Your task to perform on an android device: allow cookies in the chrome app Image 0: 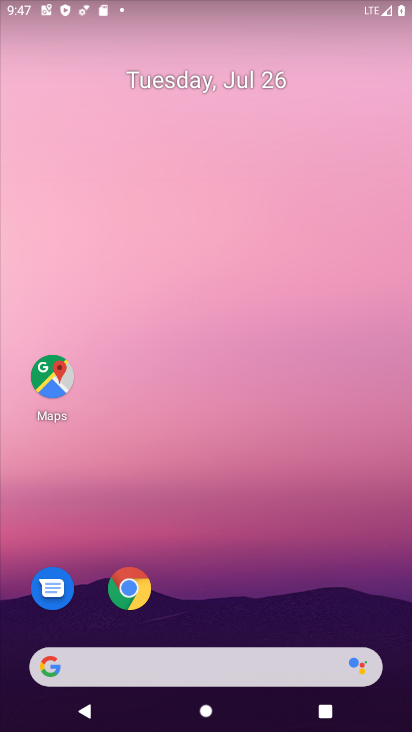
Step 0: click (130, 587)
Your task to perform on an android device: allow cookies in the chrome app Image 1: 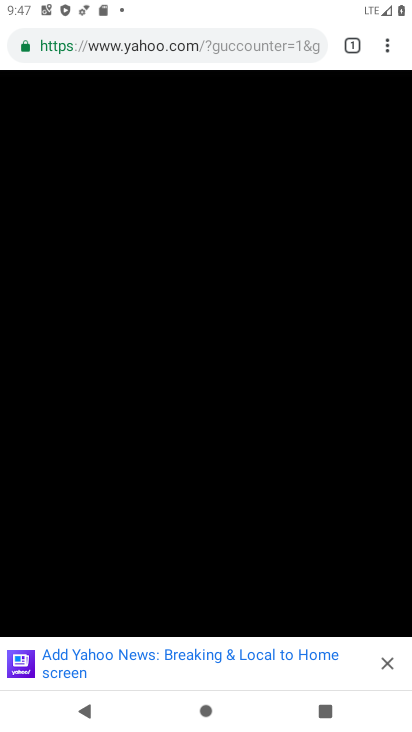
Step 1: click (388, 47)
Your task to perform on an android device: allow cookies in the chrome app Image 2: 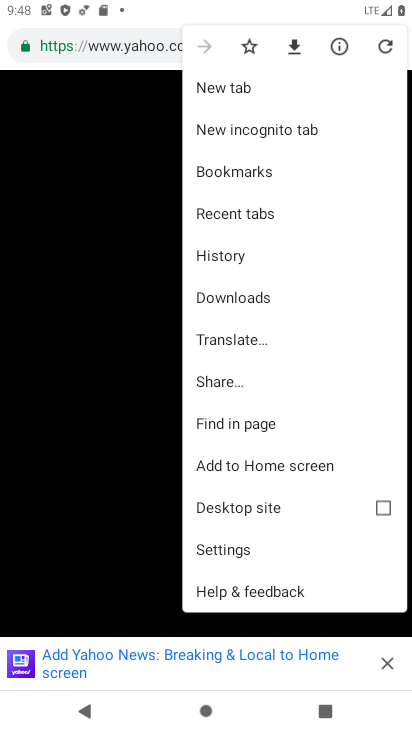
Step 2: click (227, 550)
Your task to perform on an android device: allow cookies in the chrome app Image 3: 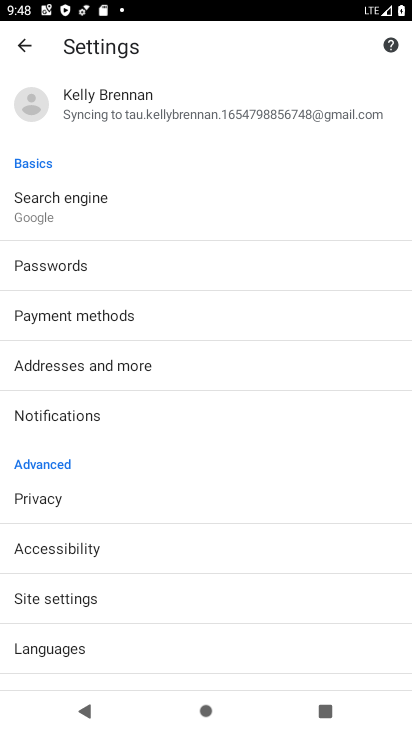
Step 3: drag from (127, 496) to (158, 385)
Your task to perform on an android device: allow cookies in the chrome app Image 4: 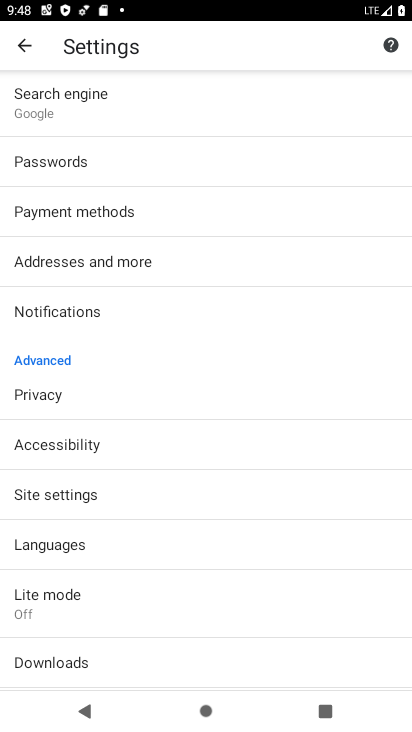
Step 4: click (83, 498)
Your task to perform on an android device: allow cookies in the chrome app Image 5: 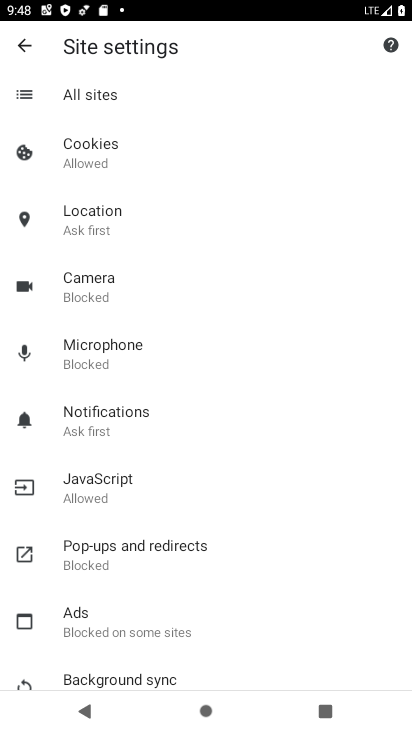
Step 5: click (113, 159)
Your task to perform on an android device: allow cookies in the chrome app Image 6: 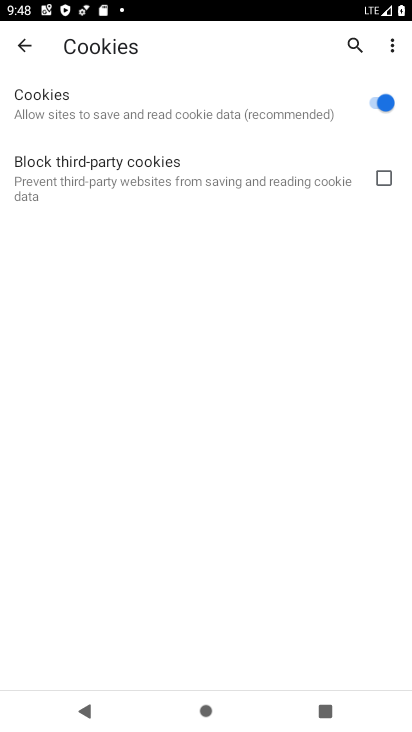
Step 6: click (386, 178)
Your task to perform on an android device: allow cookies in the chrome app Image 7: 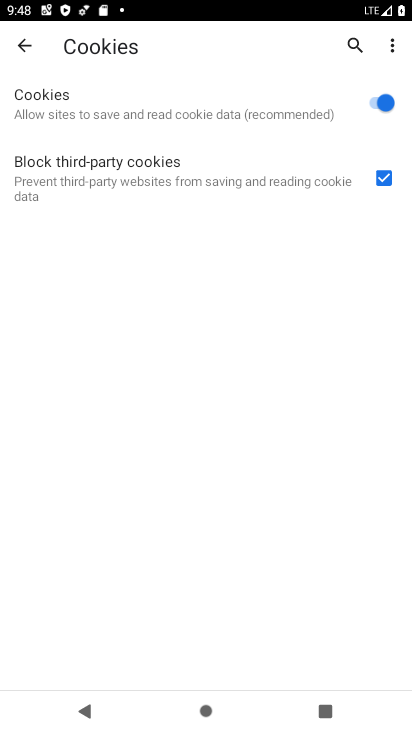
Step 7: task complete